Your task to perform on an android device: choose inbox layout in the gmail app Image 0: 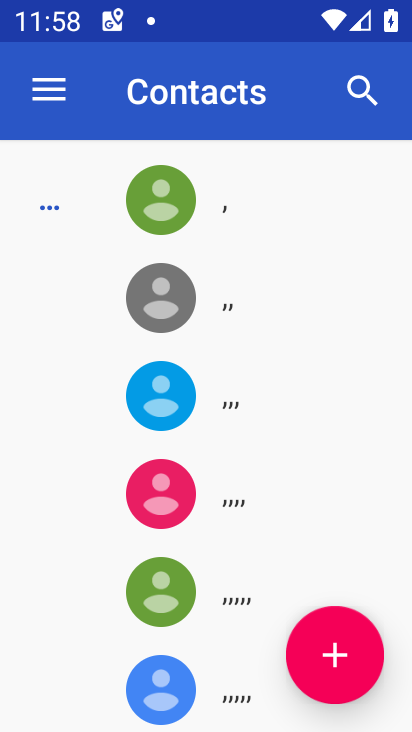
Step 0: press home button
Your task to perform on an android device: choose inbox layout in the gmail app Image 1: 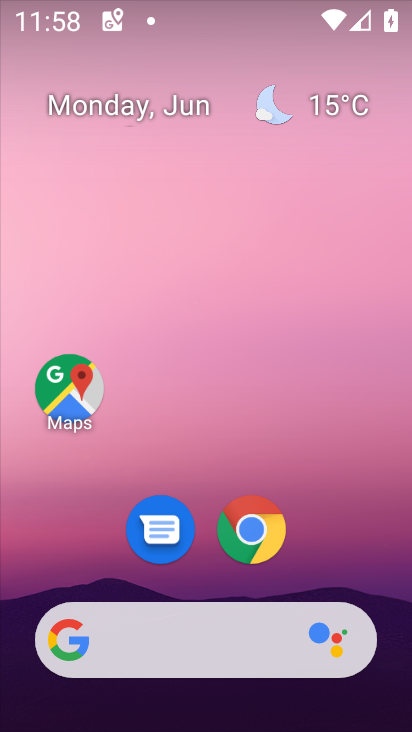
Step 1: drag from (80, 595) to (285, 56)
Your task to perform on an android device: choose inbox layout in the gmail app Image 2: 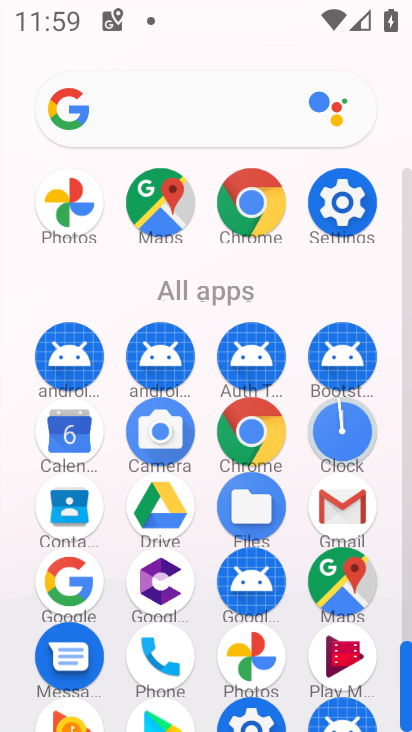
Step 2: click (332, 508)
Your task to perform on an android device: choose inbox layout in the gmail app Image 3: 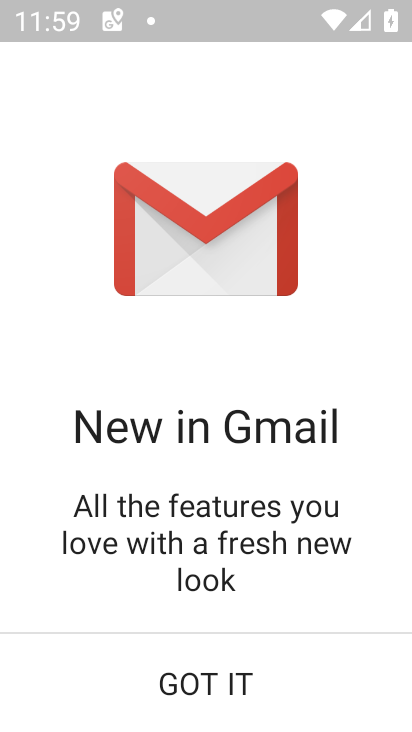
Step 3: click (294, 677)
Your task to perform on an android device: choose inbox layout in the gmail app Image 4: 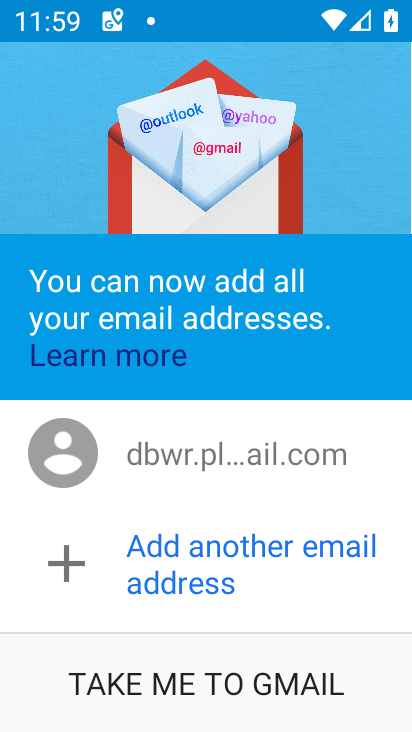
Step 4: click (288, 682)
Your task to perform on an android device: choose inbox layout in the gmail app Image 5: 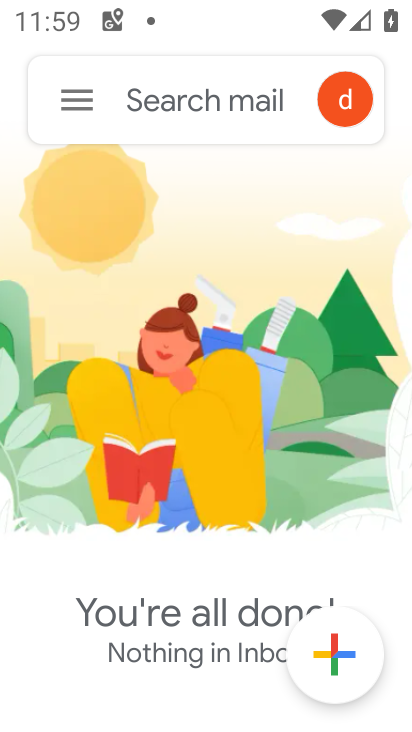
Step 5: click (97, 119)
Your task to perform on an android device: choose inbox layout in the gmail app Image 6: 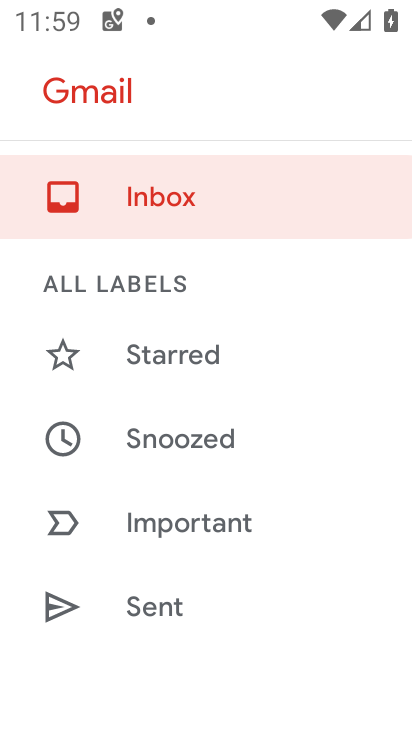
Step 6: drag from (142, 659) to (321, 239)
Your task to perform on an android device: choose inbox layout in the gmail app Image 7: 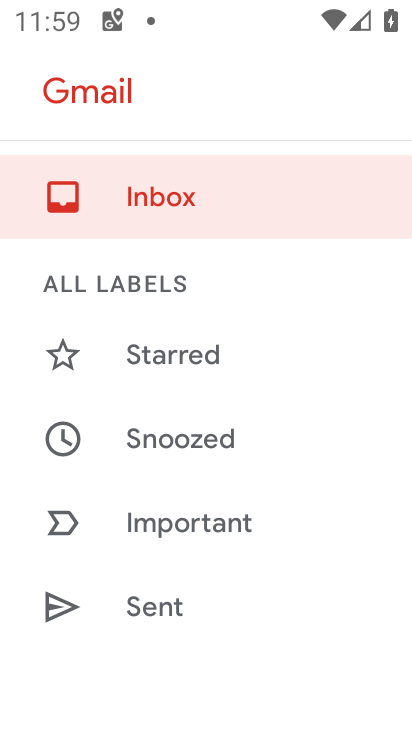
Step 7: drag from (246, 619) to (356, 86)
Your task to perform on an android device: choose inbox layout in the gmail app Image 8: 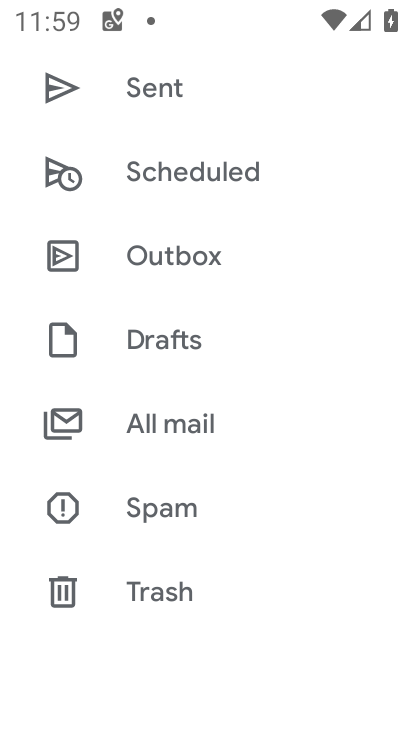
Step 8: drag from (217, 609) to (345, 153)
Your task to perform on an android device: choose inbox layout in the gmail app Image 9: 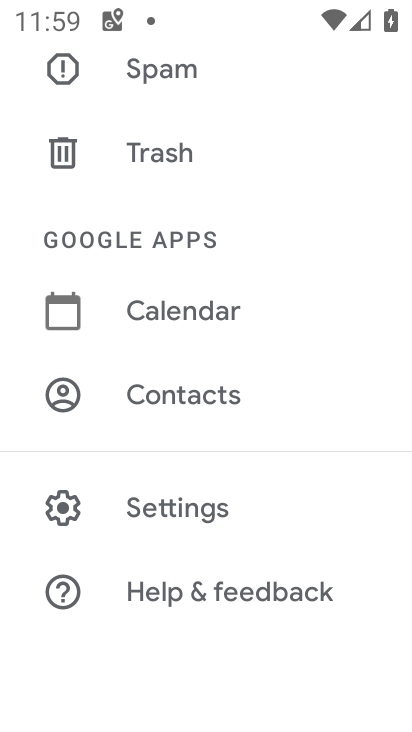
Step 9: click (255, 505)
Your task to perform on an android device: choose inbox layout in the gmail app Image 10: 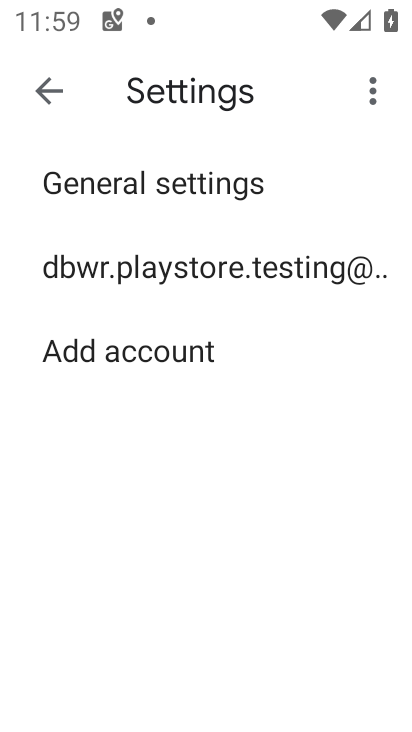
Step 10: click (279, 293)
Your task to perform on an android device: choose inbox layout in the gmail app Image 11: 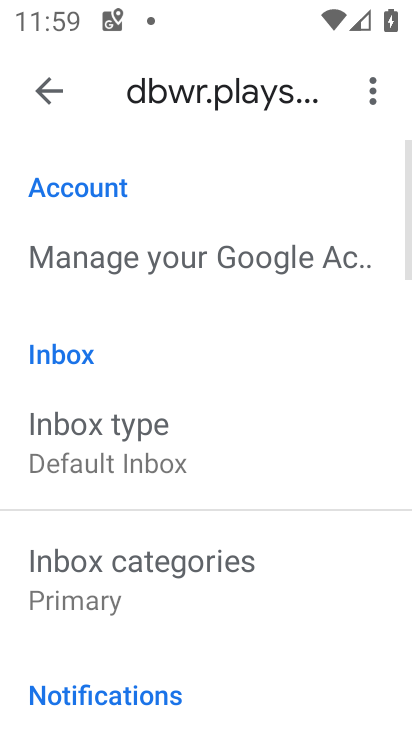
Step 11: click (251, 470)
Your task to perform on an android device: choose inbox layout in the gmail app Image 12: 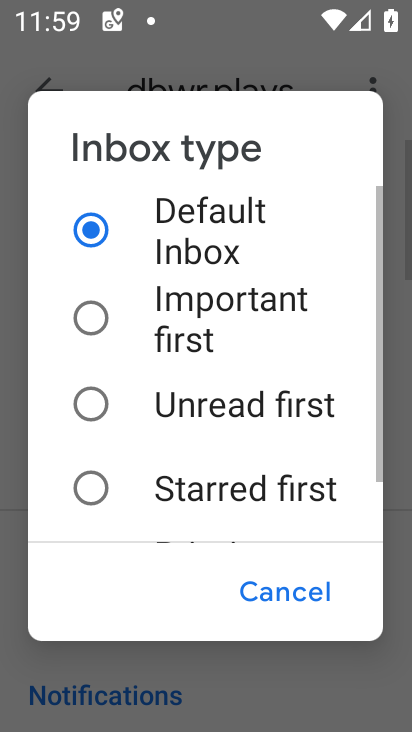
Step 12: drag from (242, 502) to (314, 209)
Your task to perform on an android device: choose inbox layout in the gmail app Image 13: 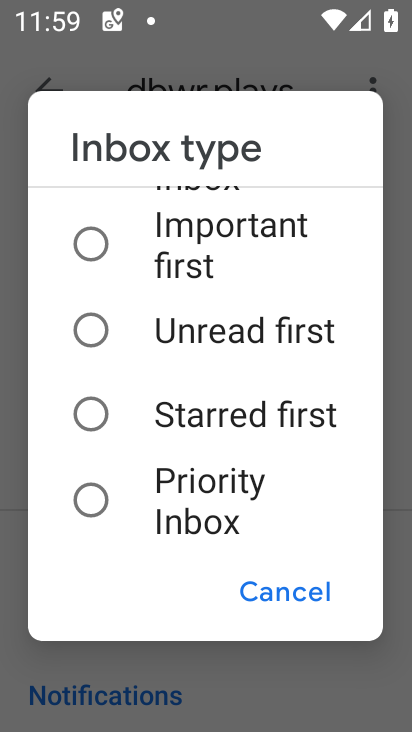
Step 13: click (256, 507)
Your task to perform on an android device: choose inbox layout in the gmail app Image 14: 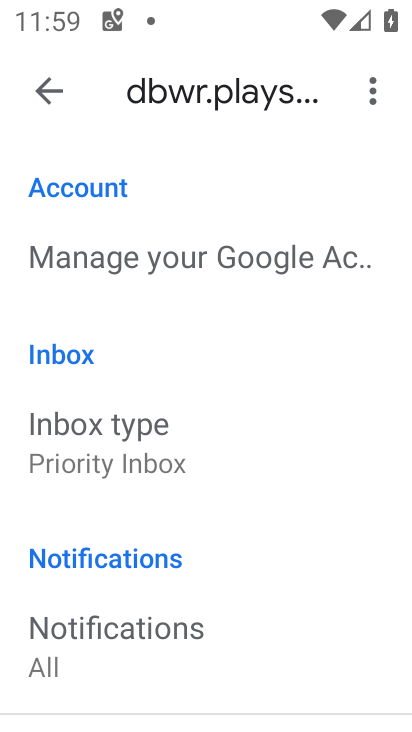
Step 14: task complete